Your task to perform on an android device: See recent photos Image 0: 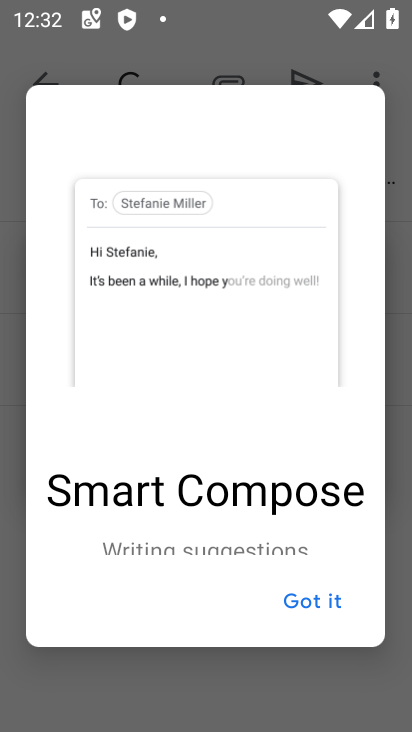
Step 0: press home button
Your task to perform on an android device: See recent photos Image 1: 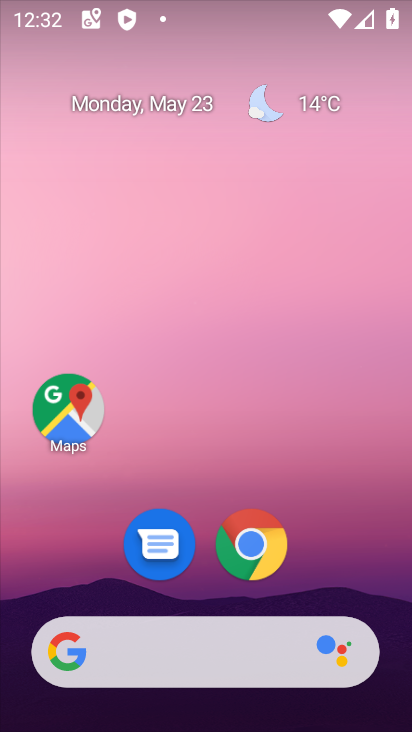
Step 1: drag from (331, 538) to (283, 71)
Your task to perform on an android device: See recent photos Image 2: 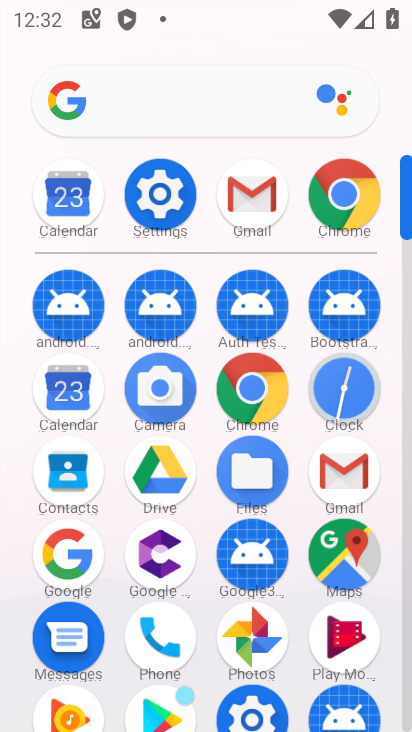
Step 2: click (261, 641)
Your task to perform on an android device: See recent photos Image 3: 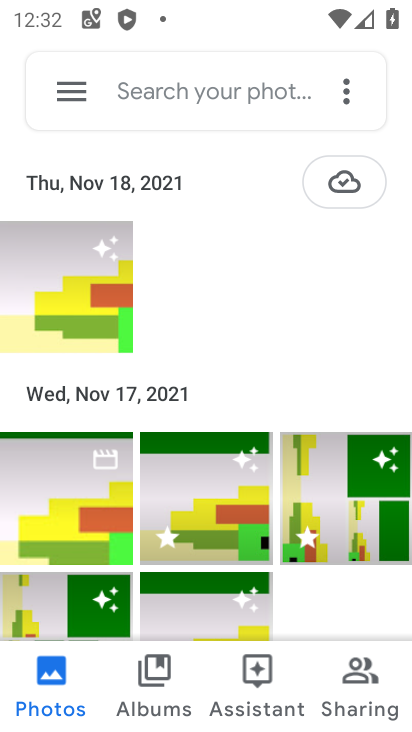
Step 3: task complete